Your task to perform on an android device: Go to Google maps Image 0: 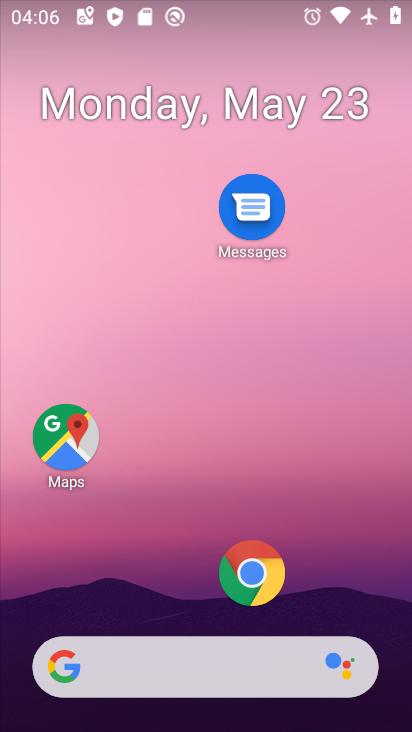
Step 0: drag from (211, 656) to (248, 83)
Your task to perform on an android device: Go to Google maps Image 1: 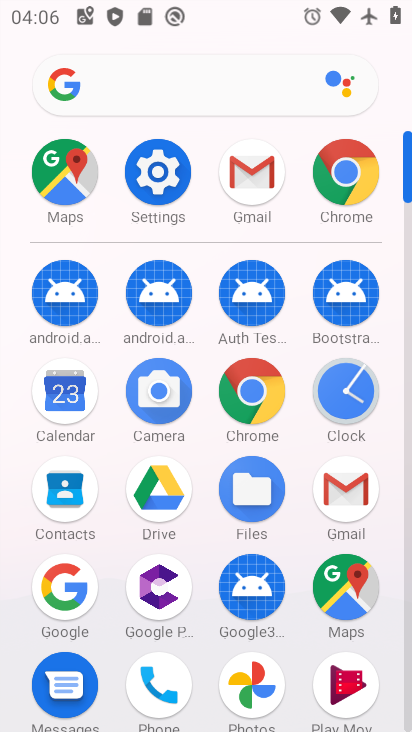
Step 1: click (338, 597)
Your task to perform on an android device: Go to Google maps Image 2: 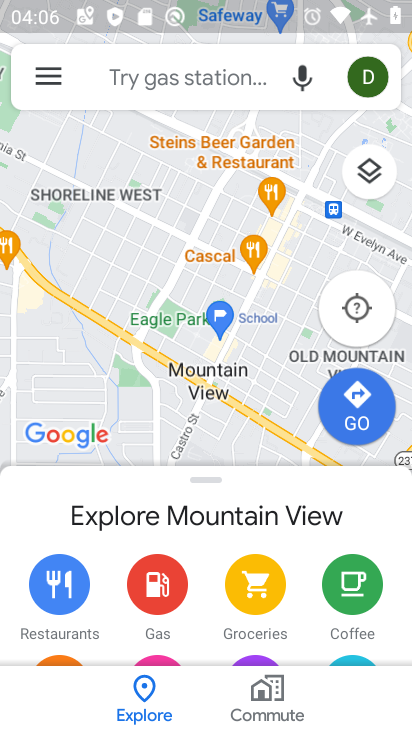
Step 2: task complete